Your task to perform on an android device: Go to Yahoo.com Image 0: 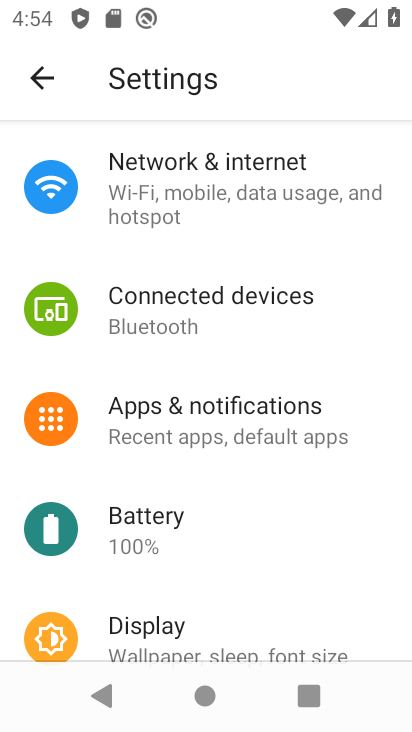
Step 0: press home button
Your task to perform on an android device: Go to Yahoo.com Image 1: 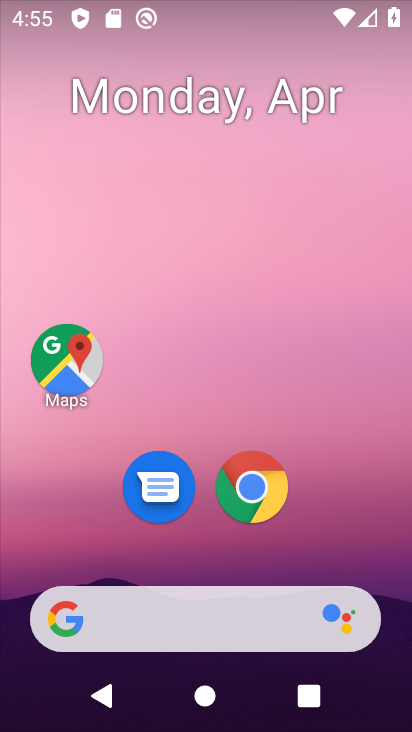
Step 1: click (269, 505)
Your task to perform on an android device: Go to Yahoo.com Image 2: 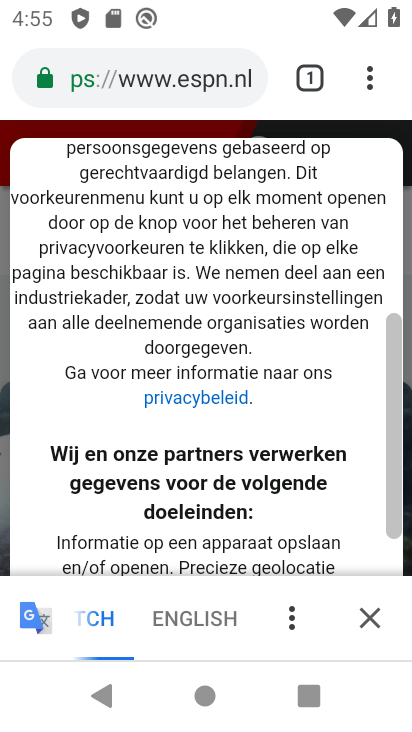
Step 2: click (315, 74)
Your task to perform on an android device: Go to Yahoo.com Image 3: 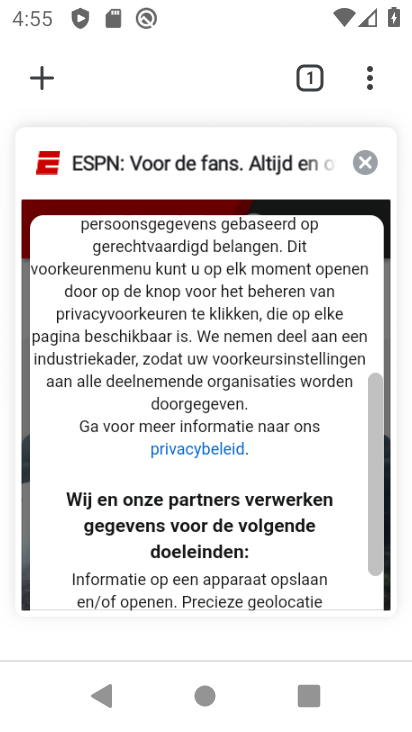
Step 3: click (56, 67)
Your task to perform on an android device: Go to Yahoo.com Image 4: 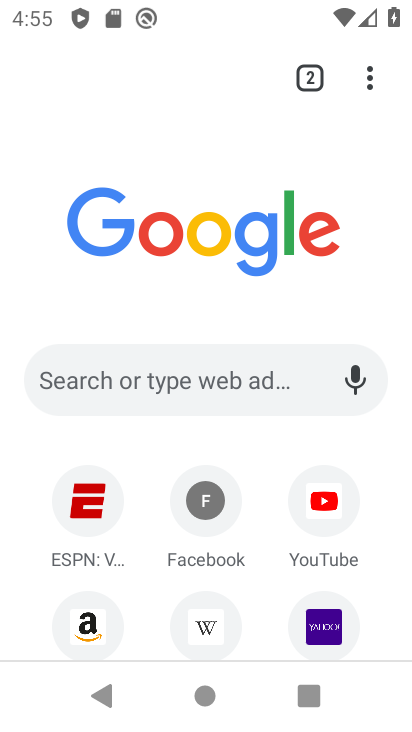
Step 4: click (328, 607)
Your task to perform on an android device: Go to Yahoo.com Image 5: 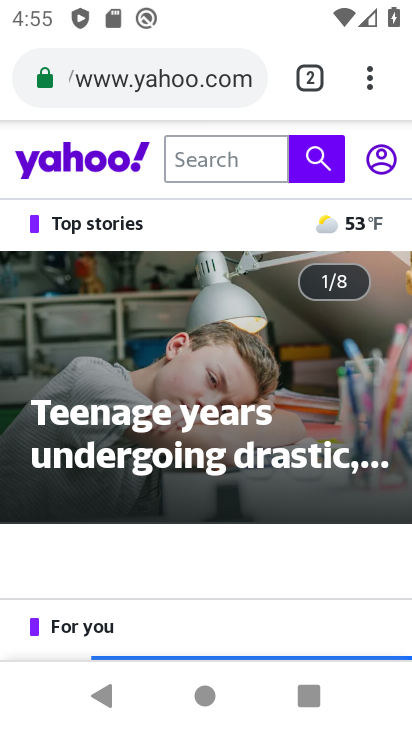
Step 5: task complete